Your task to perform on an android device: turn off notifications in google photos Image 0: 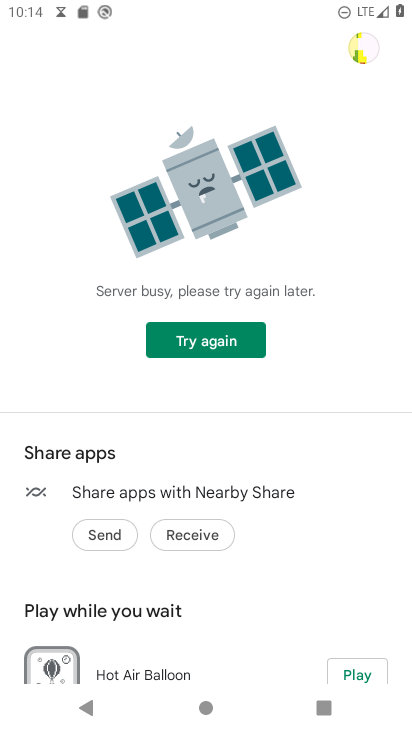
Step 0: press home button
Your task to perform on an android device: turn off notifications in google photos Image 1: 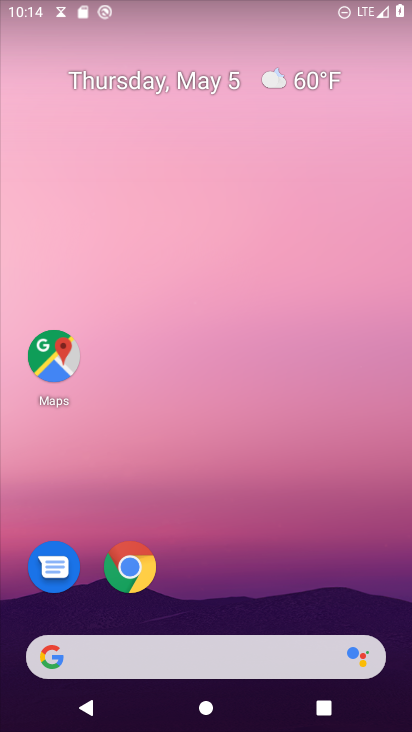
Step 1: drag from (220, 723) to (221, 219)
Your task to perform on an android device: turn off notifications in google photos Image 2: 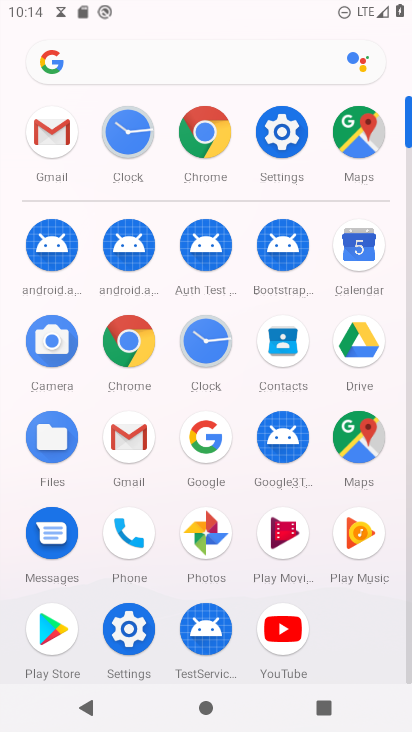
Step 2: click (203, 533)
Your task to perform on an android device: turn off notifications in google photos Image 3: 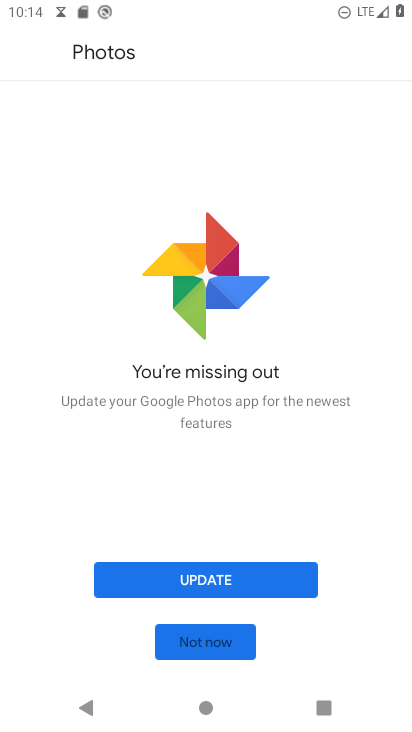
Step 3: click (201, 576)
Your task to perform on an android device: turn off notifications in google photos Image 4: 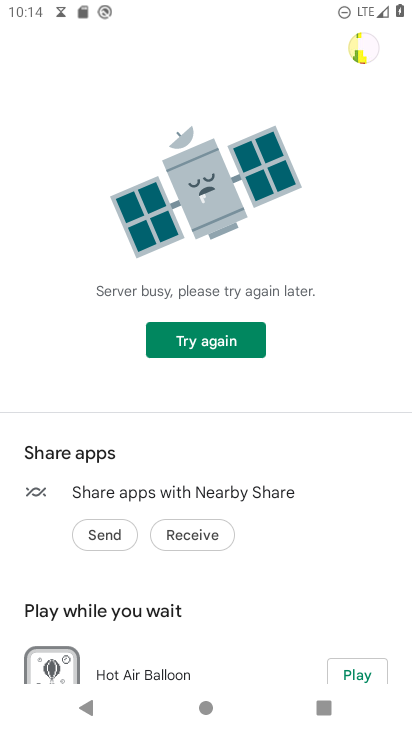
Step 4: click (194, 346)
Your task to perform on an android device: turn off notifications in google photos Image 5: 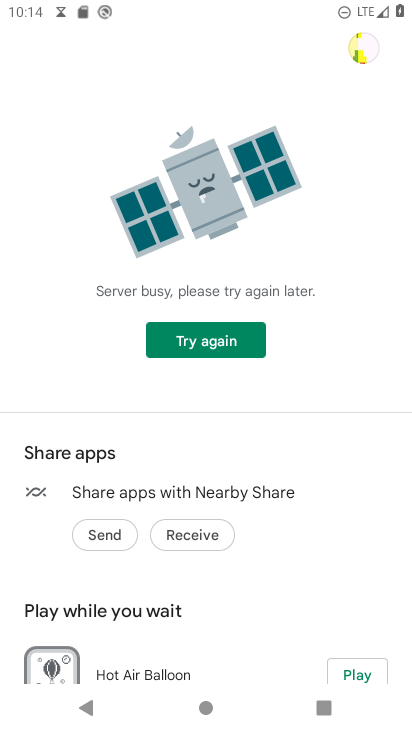
Step 5: task complete